Your task to perform on an android device: find which apps use the phone's location Image 0: 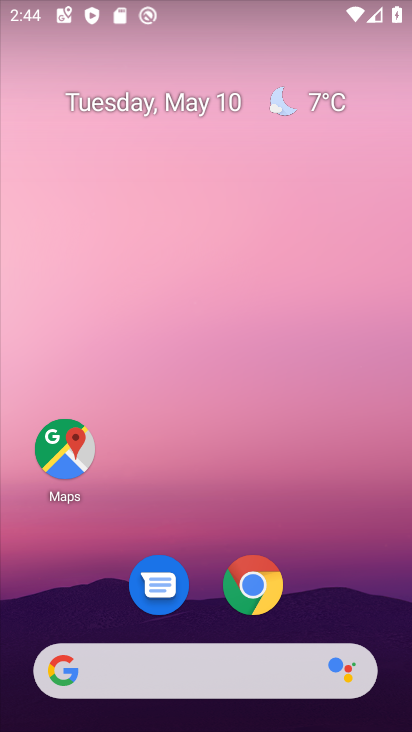
Step 0: drag from (292, 520) to (309, 44)
Your task to perform on an android device: find which apps use the phone's location Image 1: 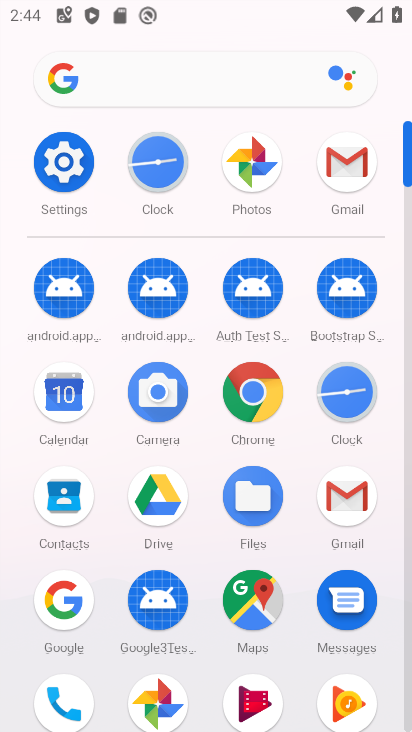
Step 1: click (46, 160)
Your task to perform on an android device: find which apps use the phone's location Image 2: 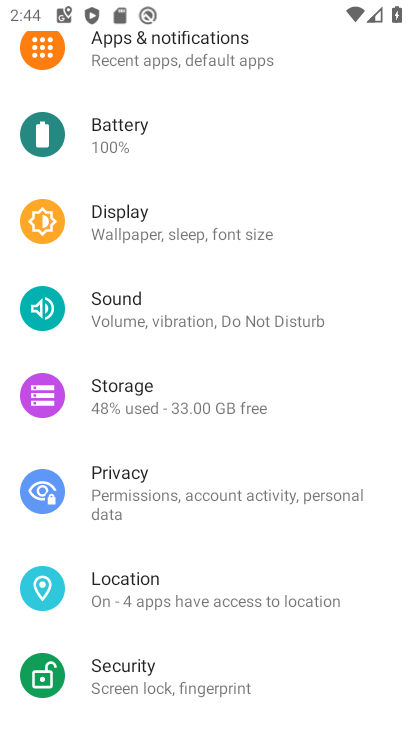
Step 2: click (220, 589)
Your task to perform on an android device: find which apps use the phone's location Image 3: 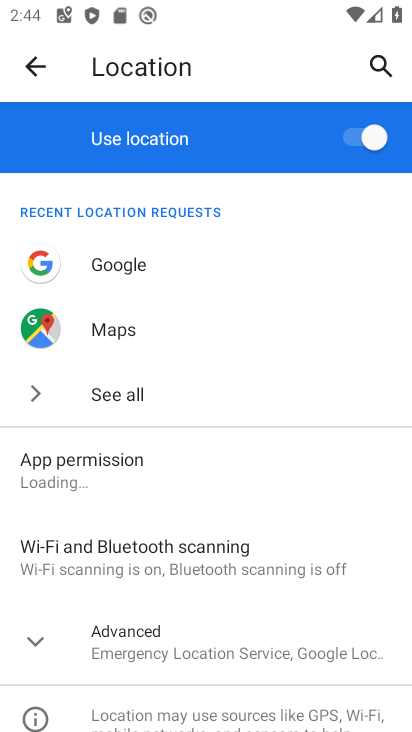
Step 3: click (158, 469)
Your task to perform on an android device: find which apps use the phone's location Image 4: 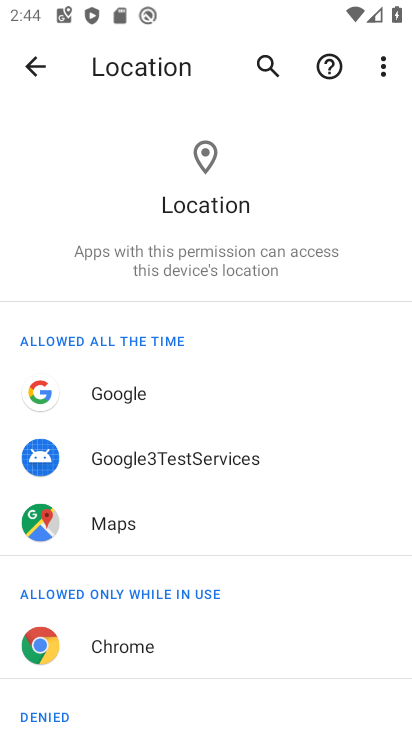
Step 4: task complete